Your task to perform on an android device: change notification settings in the gmail app Image 0: 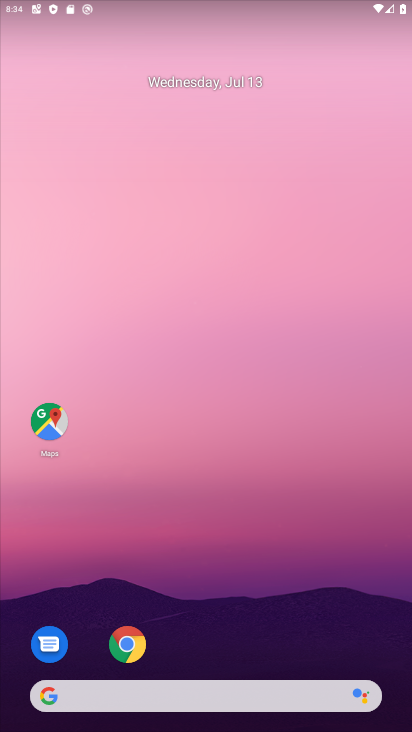
Step 0: drag from (210, 727) to (263, 129)
Your task to perform on an android device: change notification settings in the gmail app Image 1: 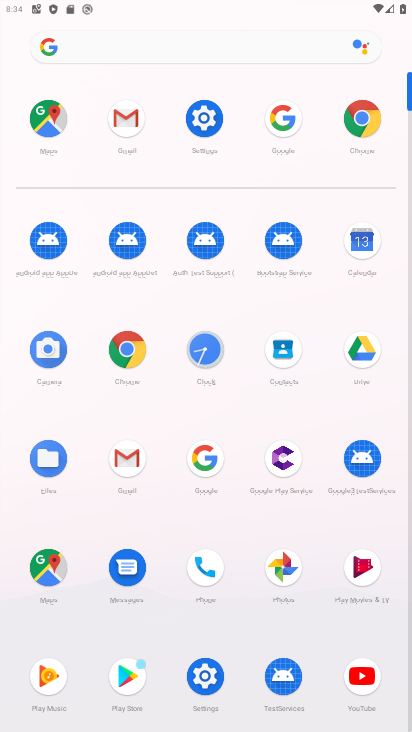
Step 1: click (125, 461)
Your task to perform on an android device: change notification settings in the gmail app Image 2: 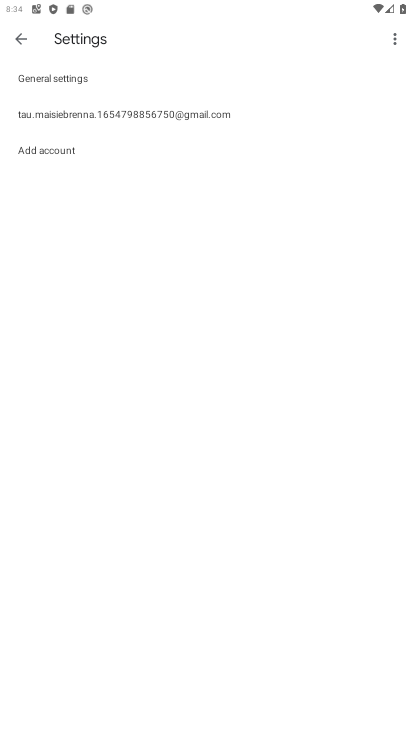
Step 2: click (128, 115)
Your task to perform on an android device: change notification settings in the gmail app Image 3: 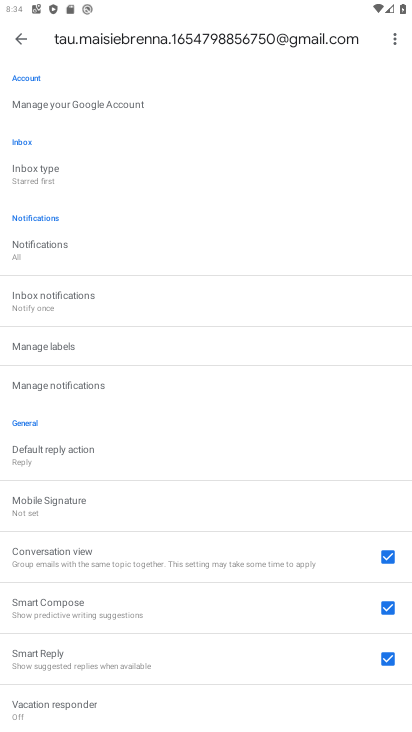
Step 3: click (40, 243)
Your task to perform on an android device: change notification settings in the gmail app Image 4: 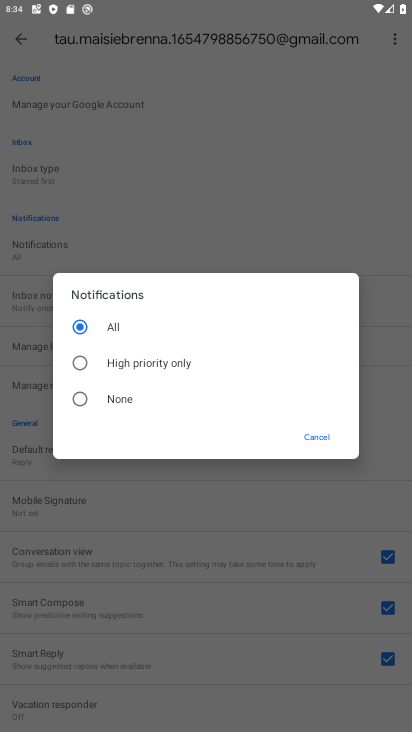
Step 4: click (84, 402)
Your task to perform on an android device: change notification settings in the gmail app Image 5: 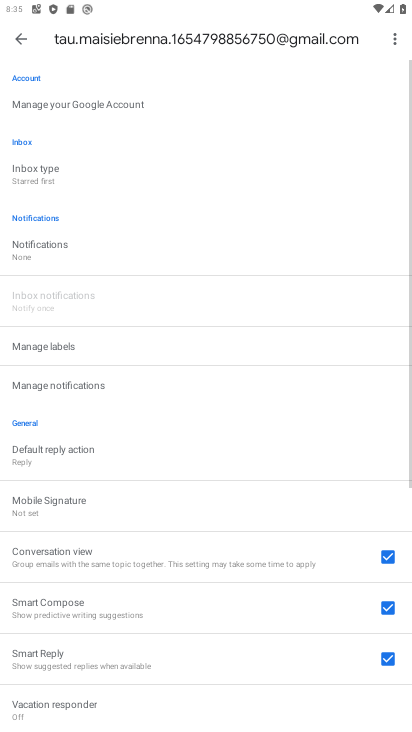
Step 5: task complete